Your task to perform on an android device: Open Google Maps and go to "Timeline" Image 0: 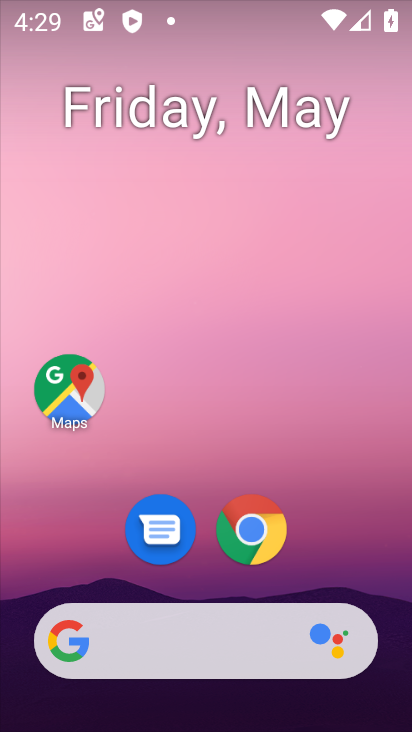
Step 0: click (56, 396)
Your task to perform on an android device: Open Google Maps and go to "Timeline" Image 1: 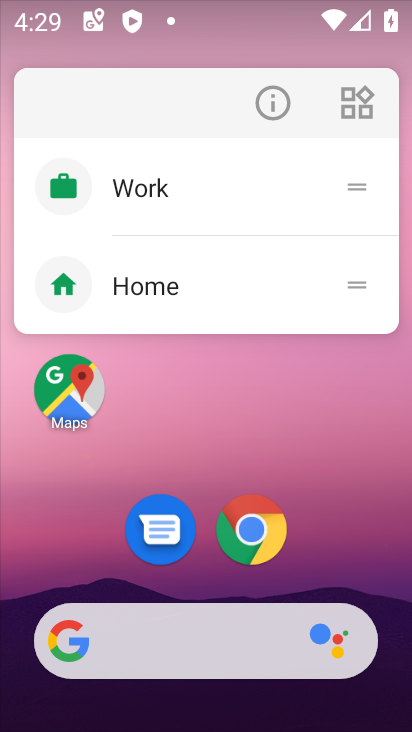
Step 1: click (62, 402)
Your task to perform on an android device: Open Google Maps and go to "Timeline" Image 2: 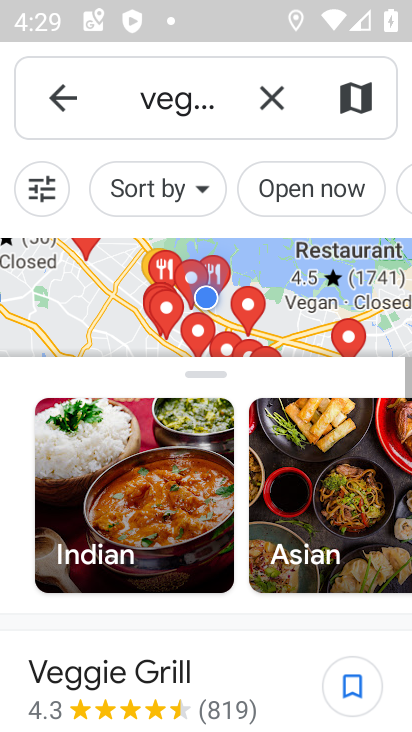
Step 2: click (283, 94)
Your task to perform on an android device: Open Google Maps and go to "Timeline" Image 3: 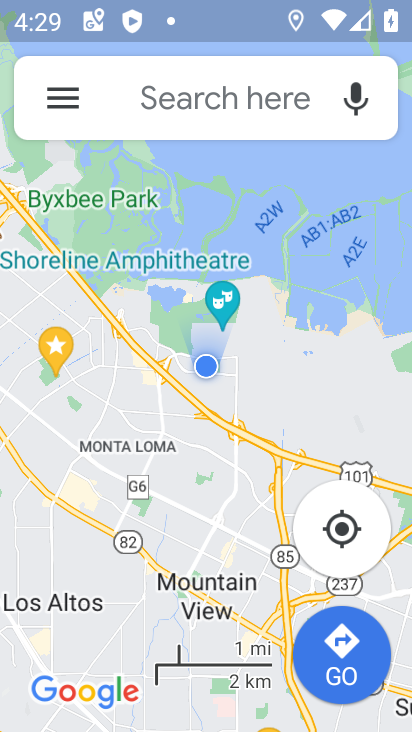
Step 3: click (57, 70)
Your task to perform on an android device: Open Google Maps and go to "Timeline" Image 4: 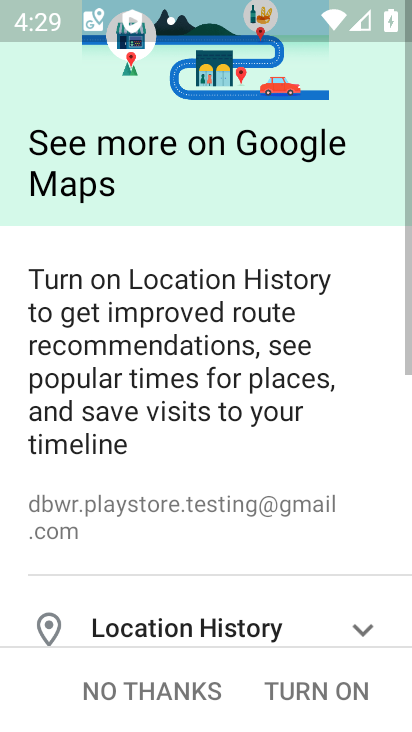
Step 4: click (170, 698)
Your task to perform on an android device: Open Google Maps and go to "Timeline" Image 5: 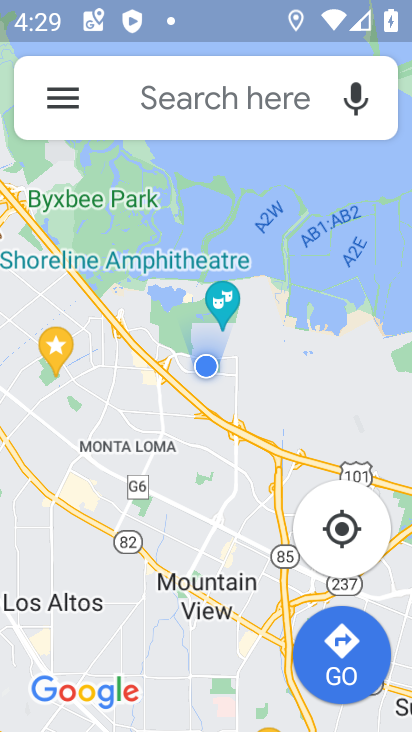
Step 5: click (59, 98)
Your task to perform on an android device: Open Google Maps and go to "Timeline" Image 6: 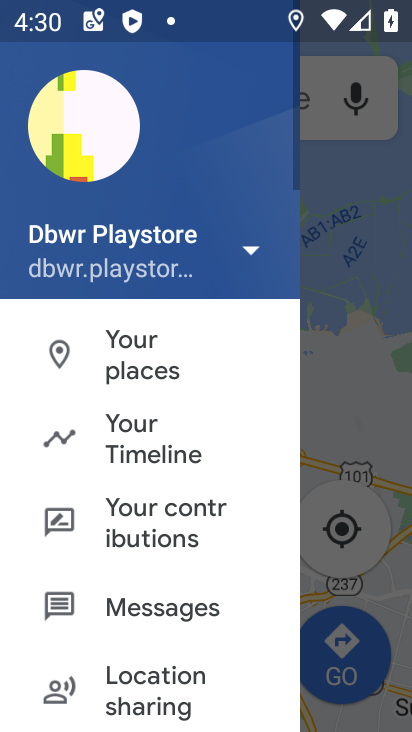
Step 6: click (138, 443)
Your task to perform on an android device: Open Google Maps and go to "Timeline" Image 7: 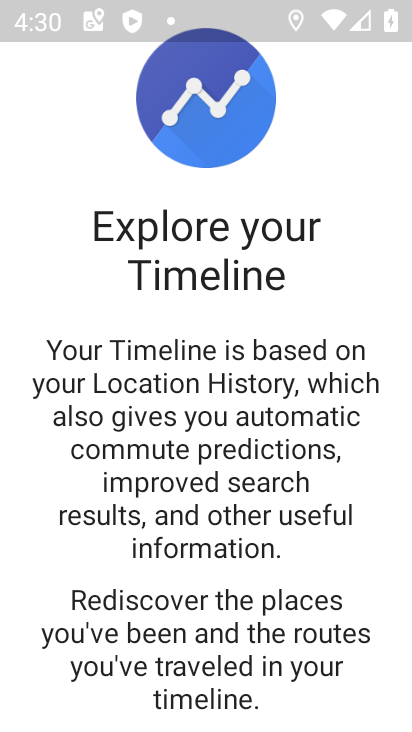
Step 7: drag from (243, 544) to (336, 249)
Your task to perform on an android device: Open Google Maps and go to "Timeline" Image 8: 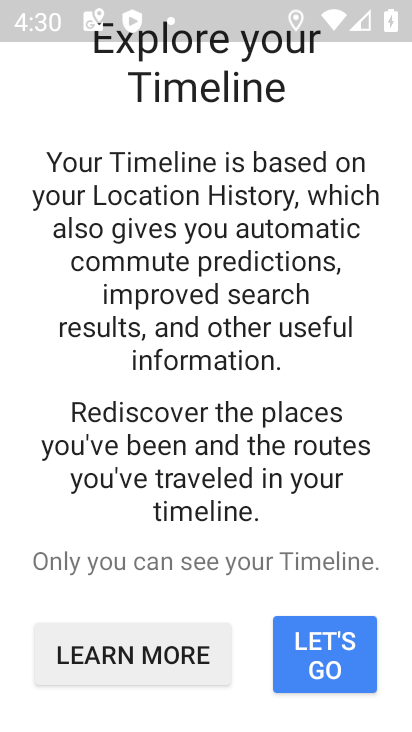
Step 8: click (323, 646)
Your task to perform on an android device: Open Google Maps and go to "Timeline" Image 9: 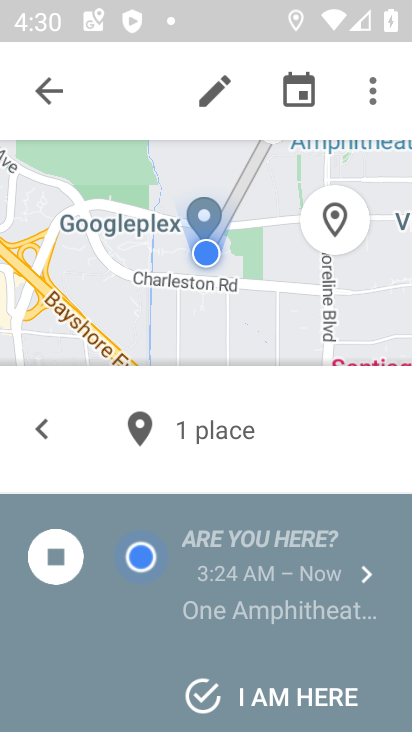
Step 9: task complete